Your task to perform on an android device: What's the weather going to be this weekend? Image 0: 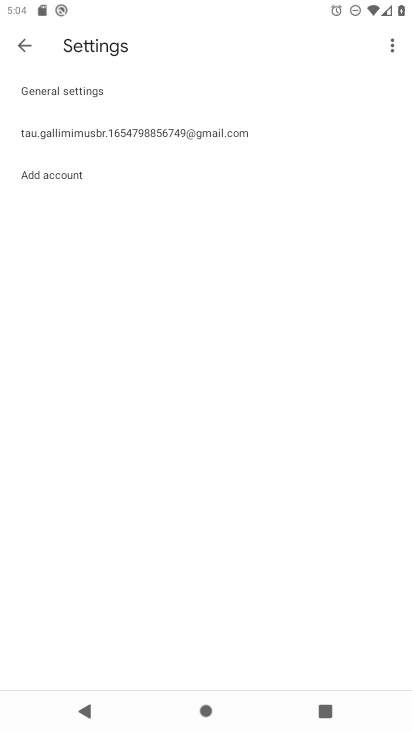
Step 0: press home button
Your task to perform on an android device: What's the weather going to be this weekend? Image 1: 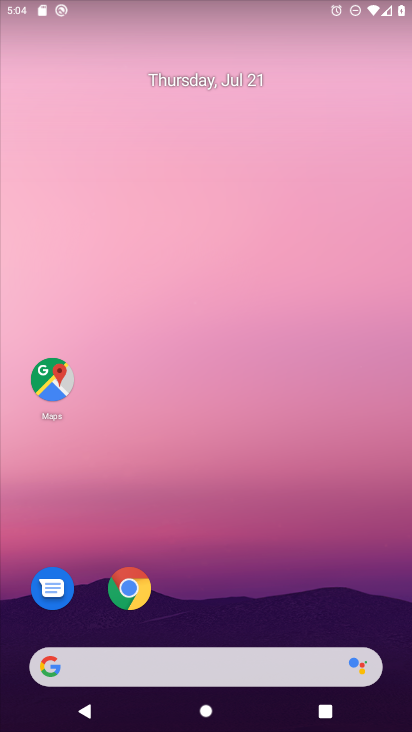
Step 1: drag from (266, 600) to (198, 74)
Your task to perform on an android device: What's the weather going to be this weekend? Image 2: 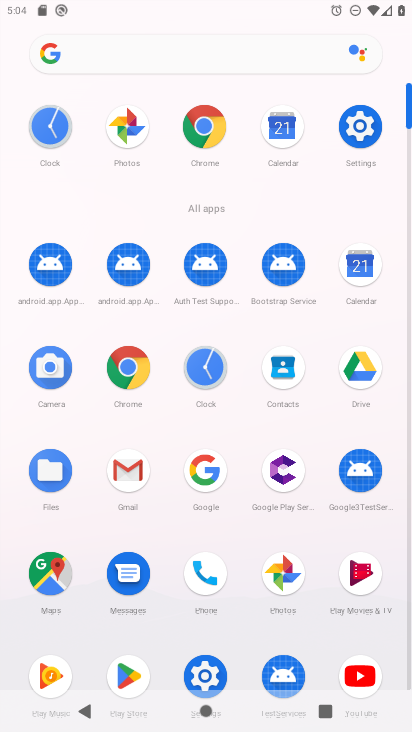
Step 2: click (201, 123)
Your task to perform on an android device: What's the weather going to be this weekend? Image 3: 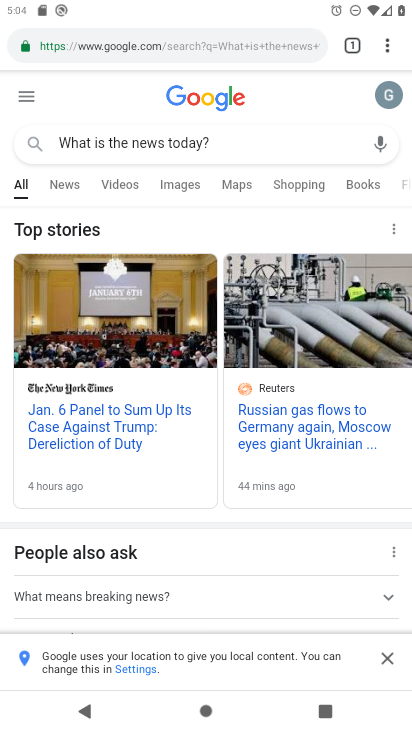
Step 3: click (219, 144)
Your task to perform on an android device: What's the weather going to be this weekend? Image 4: 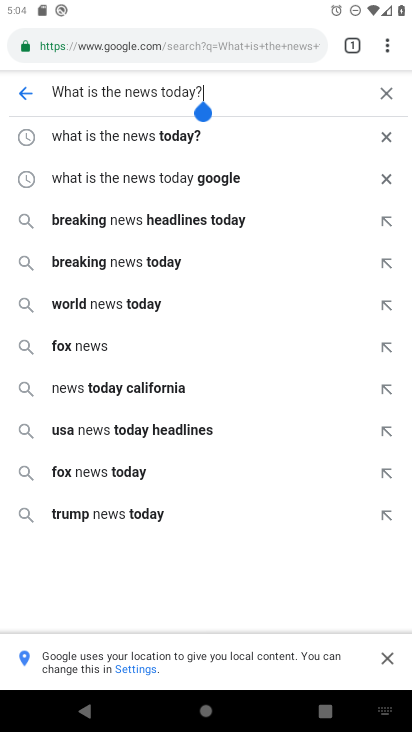
Step 4: click (384, 92)
Your task to perform on an android device: What's the weather going to be this weekend? Image 5: 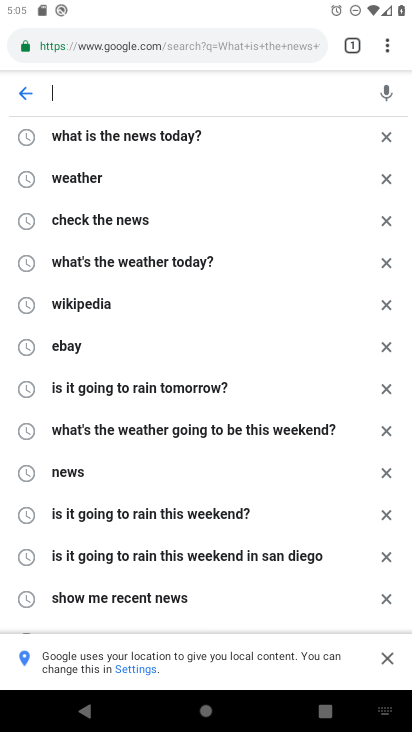
Step 5: click (322, 432)
Your task to perform on an android device: What's the weather going to be this weekend? Image 6: 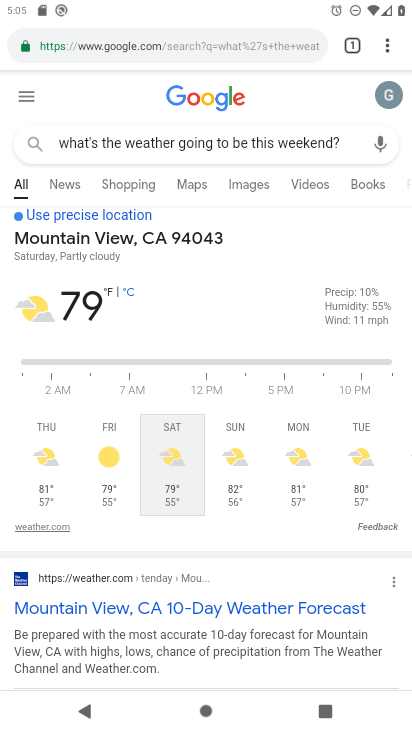
Step 6: task complete